Your task to perform on an android device: change keyboard looks Image 0: 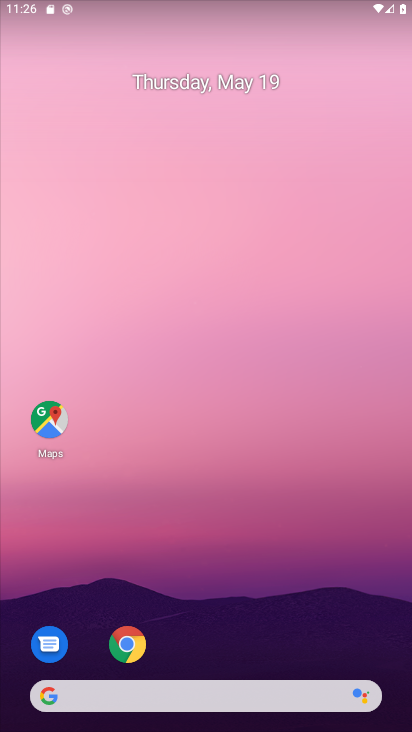
Step 0: drag from (212, 679) to (138, 129)
Your task to perform on an android device: change keyboard looks Image 1: 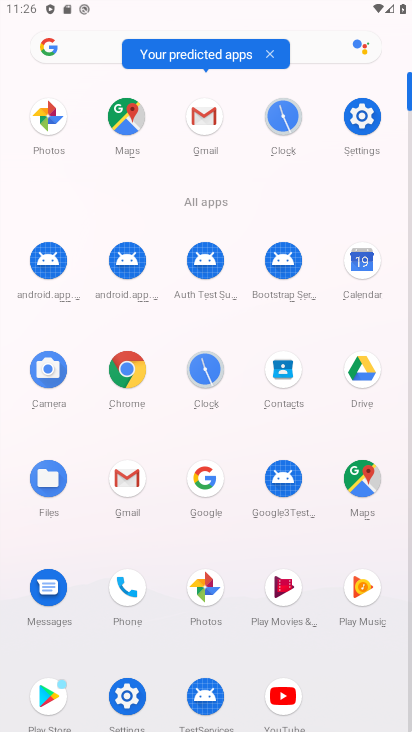
Step 1: click (354, 121)
Your task to perform on an android device: change keyboard looks Image 2: 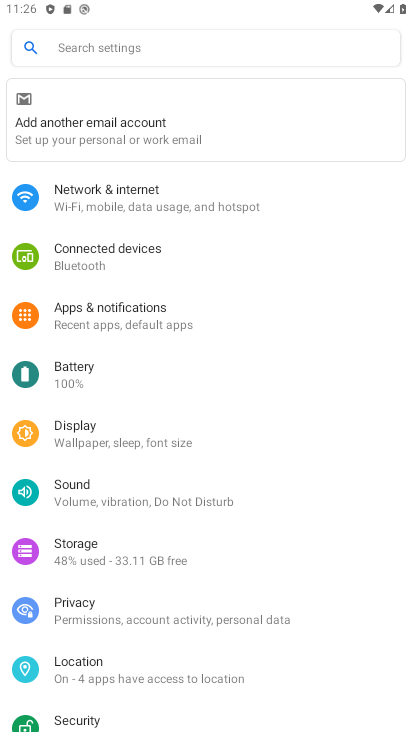
Step 2: drag from (133, 682) to (137, 227)
Your task to perform on an android device: change keyboard looks Image 3: 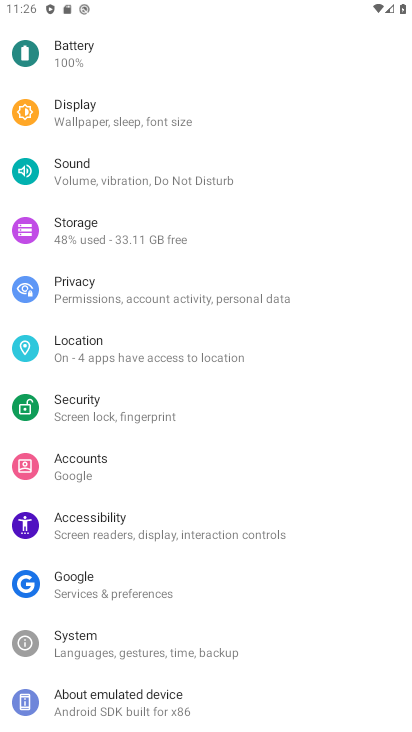
Step 3: click (130, 631)
Your task to perform on an android device: change keyboard looks Image 4: 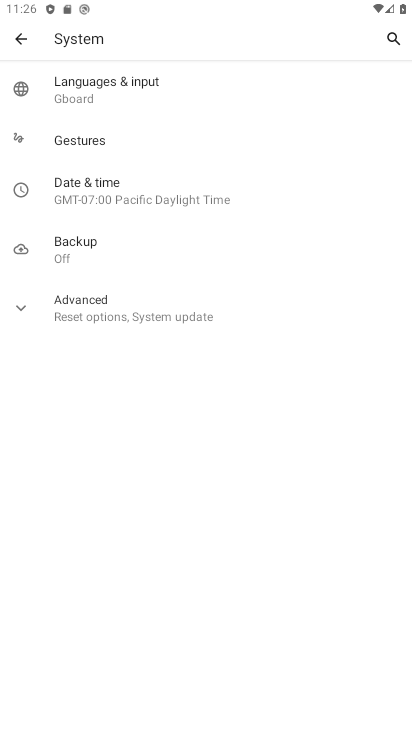
Step 4: click (98, 87)
Your task to perform on an android device: change keyboard looks Image 5: 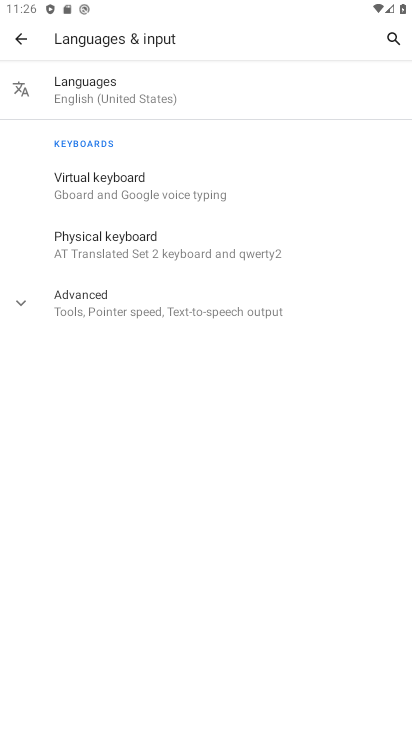
Step 5: click (105, 168)
Your task to perform on an android device: change keyboard looks Image 6: 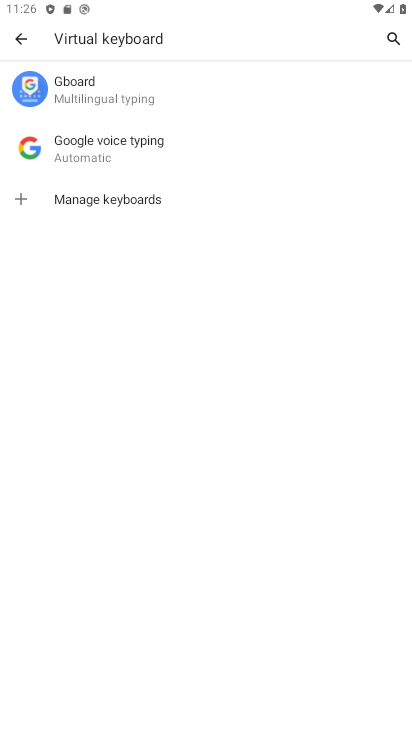
Step 6: click (95, 99)
Your task to perform on an android device: change keyboard looks Image 7: 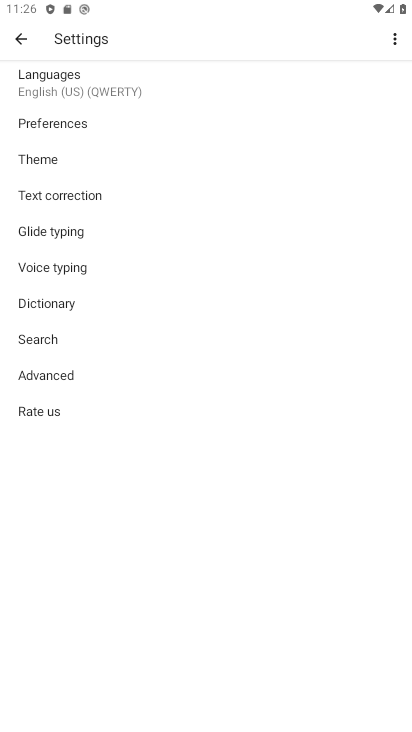
Step 7: click (98, 103)
Your task to perform on an android device: change keyboard looks Image 8: 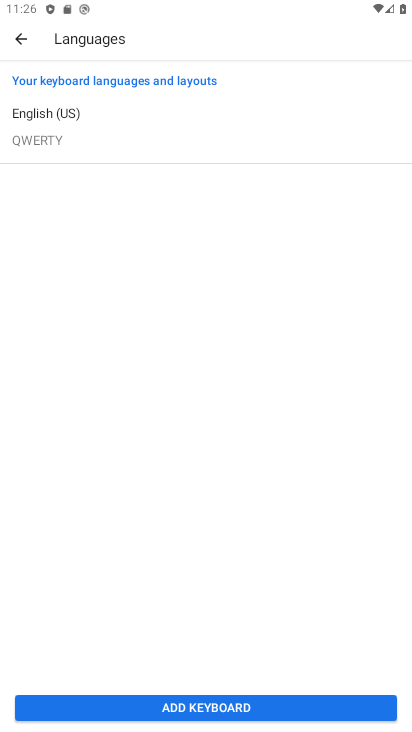
Step 8: click (21, 40)
Your task to perform on an android device: change keyboard looks Image 9: 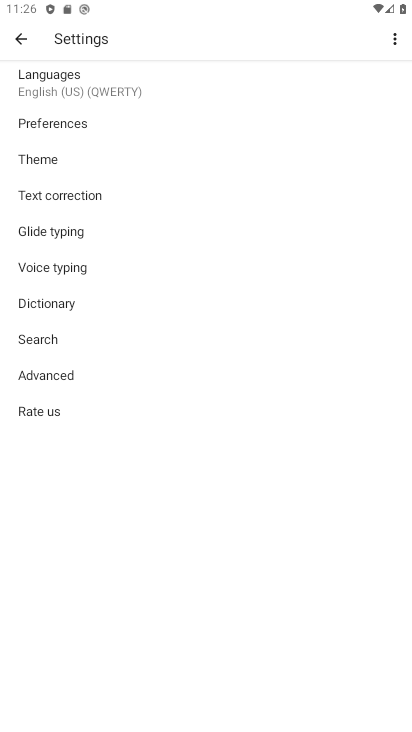
Step 9: click (34, 158)
Your task to perform on an android device: change keyboard looks Image 10: 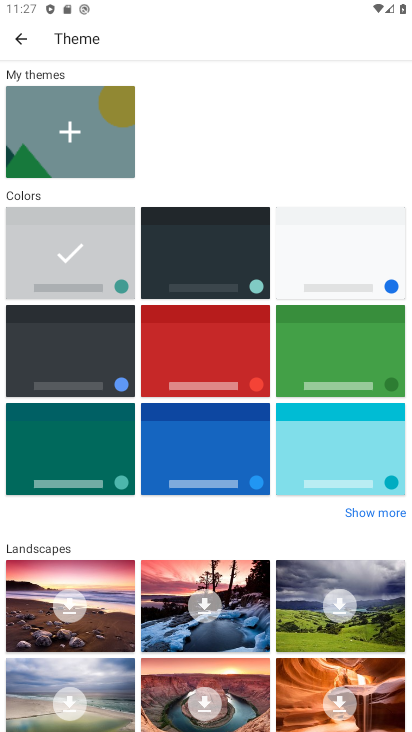
Step 10: click (176, 226)
Your task to perform on an android device: change keyboard looks Image 11: 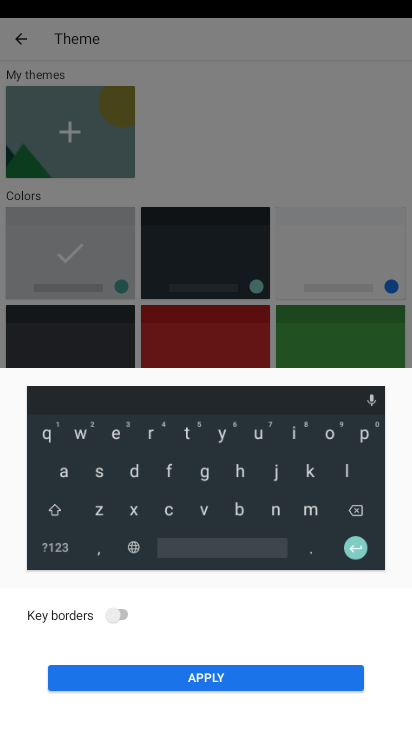
Step 11: click (335, 671)
Your task to perform on an android device: change keyboard looks Image 12: 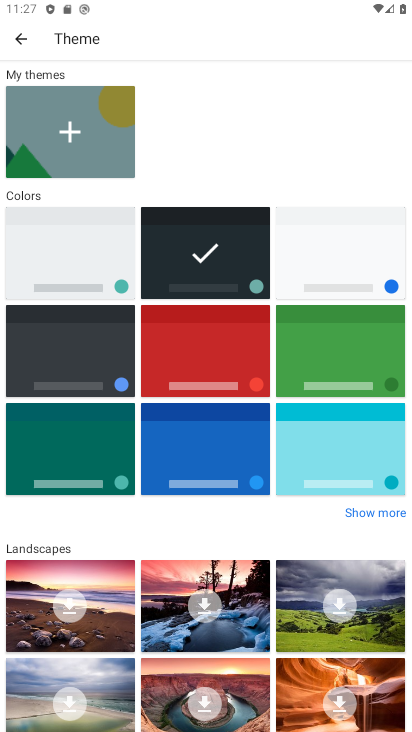
Step 12: task complete